Your task to perform on an android device: Open battery settings Image 0: 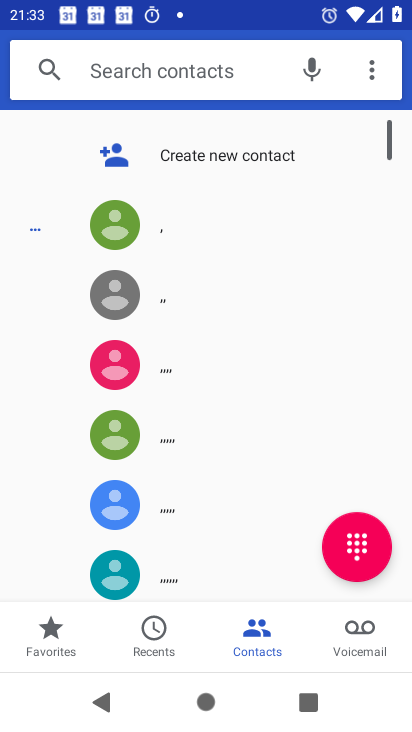
Step 0: press home button
Your task to perform on an android device: Open battery settings Image 1: 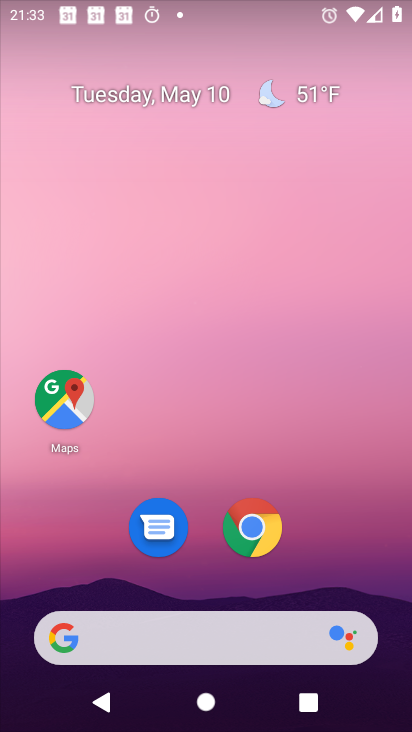
Step 1: drag from (210, 579) to (301, 30)
Your task to perform on an android device: Open battery settings Image 2: 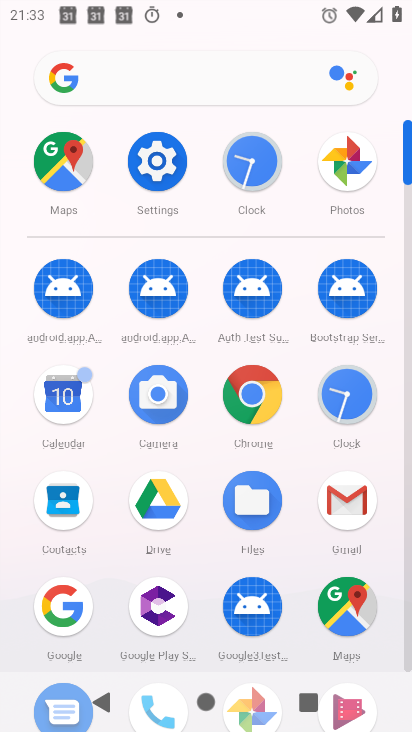
Step 2: click (163, 179)
Your task to perform on an android device: Open battery settings Image 3: 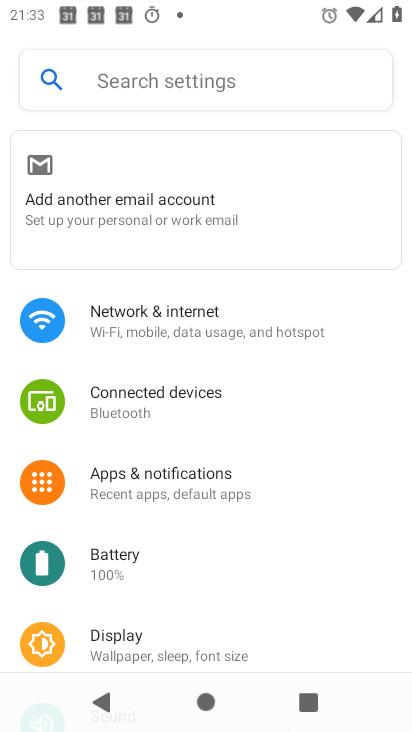
Step 3: click (81, 546)
Your task to perform on an android device: Open battery settings Image 4: 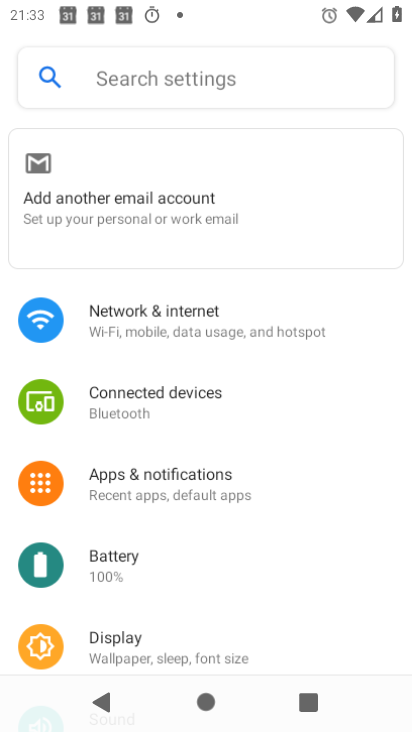
Step 4: drag from (81, 547) to (34, 45)
Your task to perform on an android device: Open battery settings Image 5: 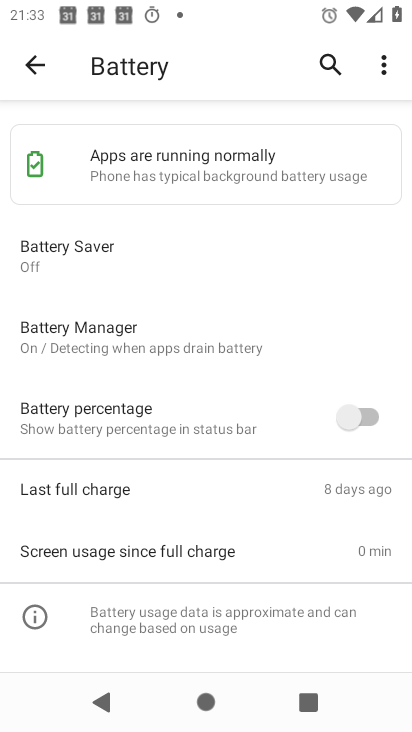
Step 5: click (371, 67)
Your task to perform on an android device: Open battery settings Image 6: 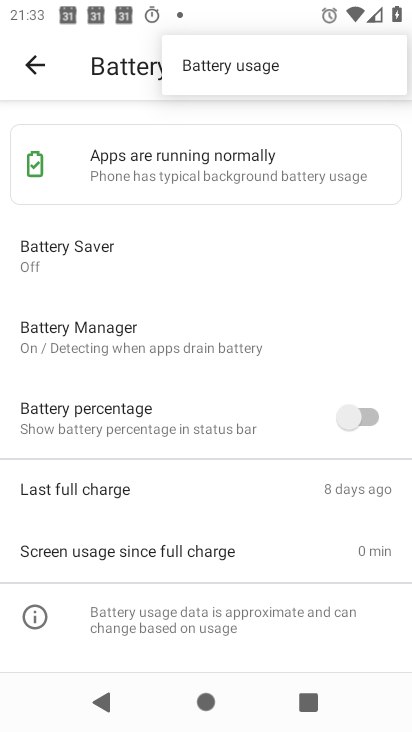
Step 6: click (214, 63)
Your task to perform on an android device: Open battery settings Image 7: 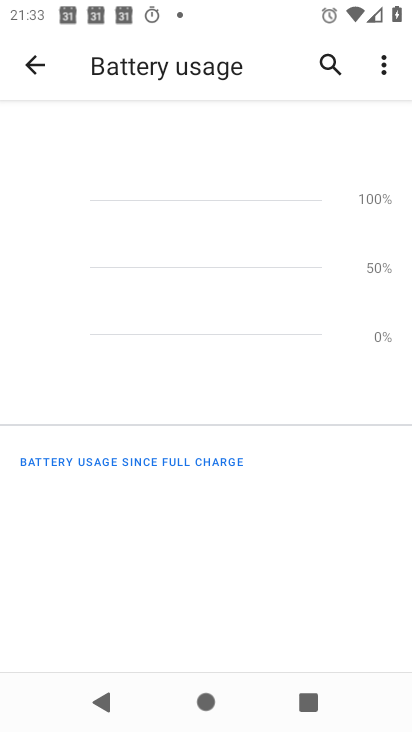
Step 7: task complete